Your task to perform on an android device: Open settings on Google Maps Image 0: 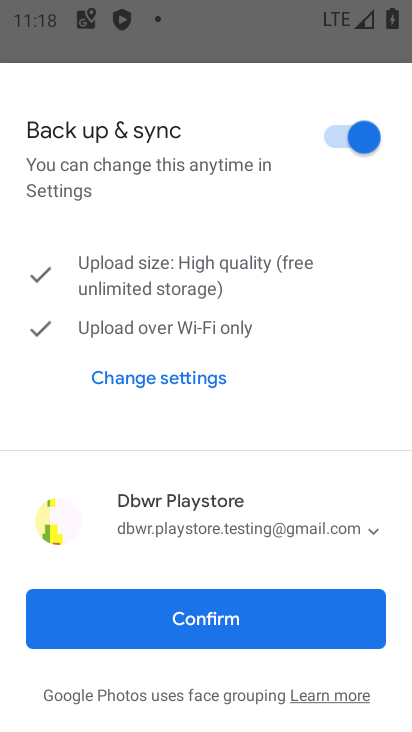
Step 0: press home button
Your task to perform on an android device: Open settings on Google Maps Image 1: 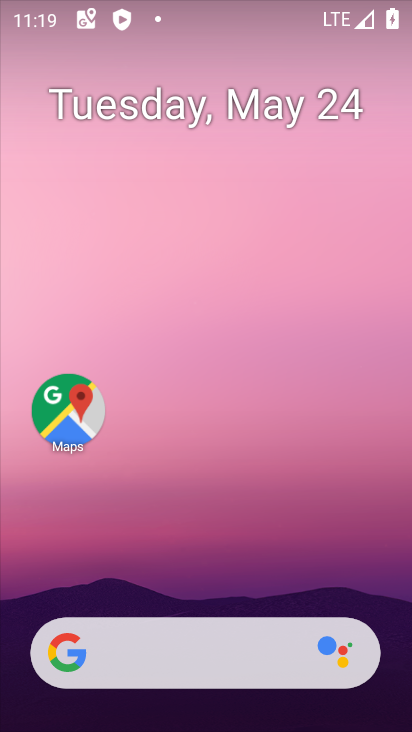
Step 1: click (66, 419)
Your task to perform on an android device: Open settings on Google Maps Image 2: 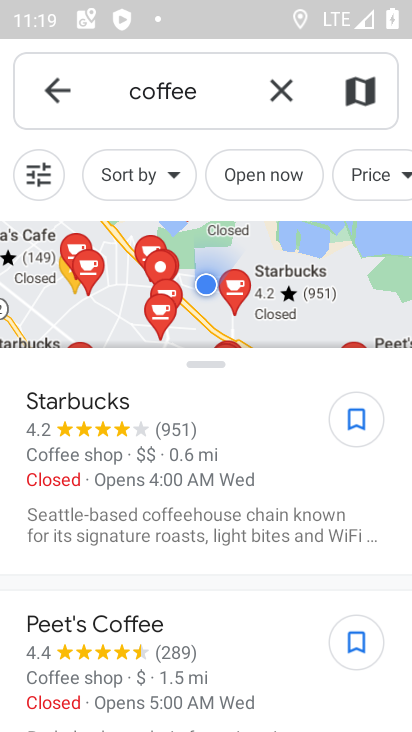
Step 2: click (52, 84)
Your task to perform on an android device: Open settings on Google Maps Image 3: 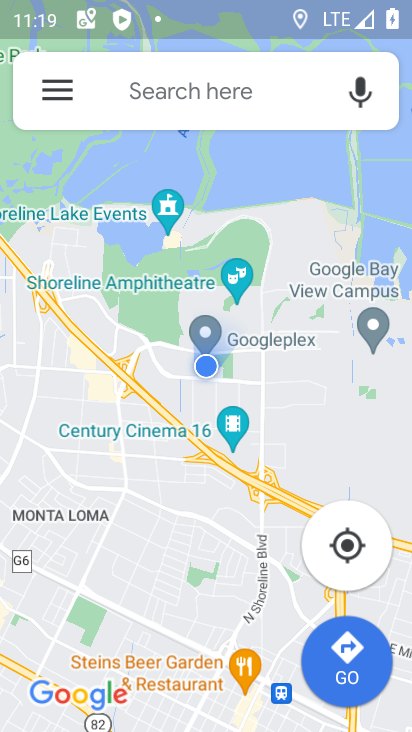
Step 3: click (54, 94)
Your task to perform on an android device: Open settings on Google Maps Image 4: 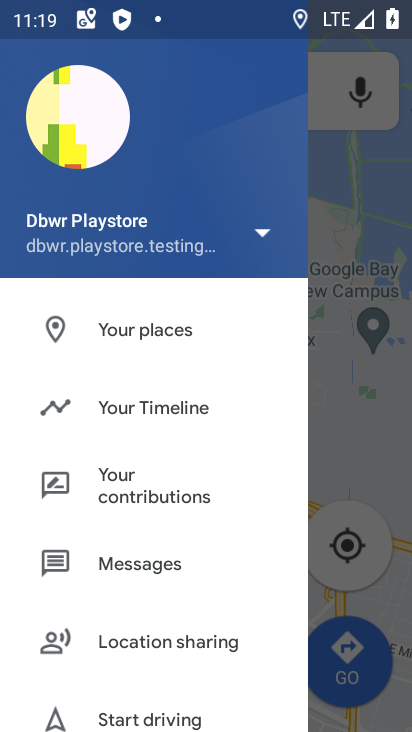
Step 4: drag from (182, 694) to (204, 300)
Your task to perform on an android device: Open settings on Google Maps Image 5: 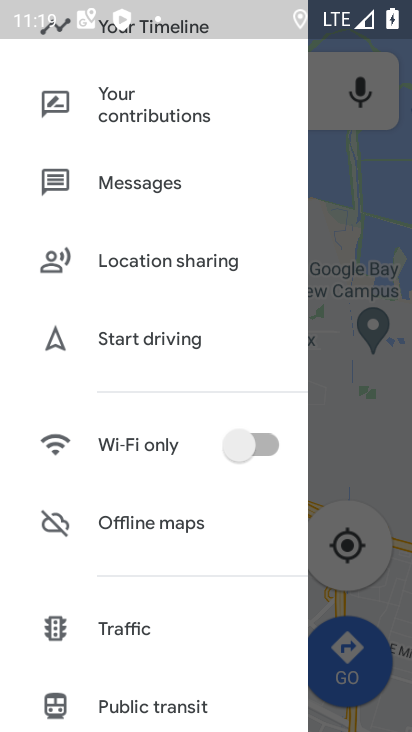
Step 5: drag from (132, 629) to (157, 125)
Your task to perform on an android device: Open settings on Google Maps Image 6: 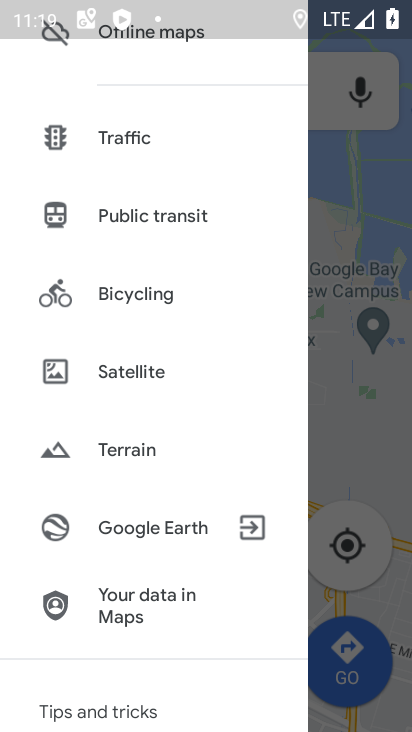
Step 6: drag from (129, 665) to (166, 285)
Your task to perform on an android device: Open settings on Google Maps Image 7: 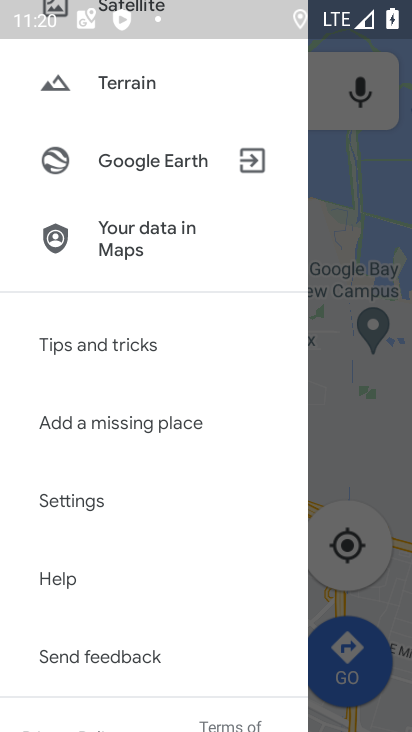
Step 7: click (105, 501)
Your task to perform on an android device: Open settings on Google Maps Image 8: 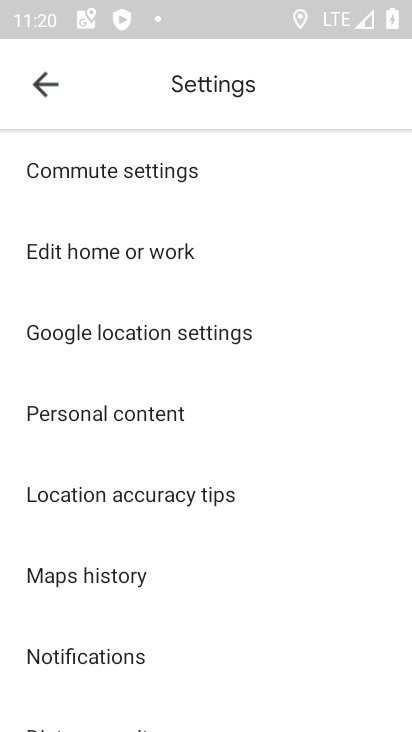
Step 8: task complete